Your task to perform on an android device: turn notification dots on Image 0: 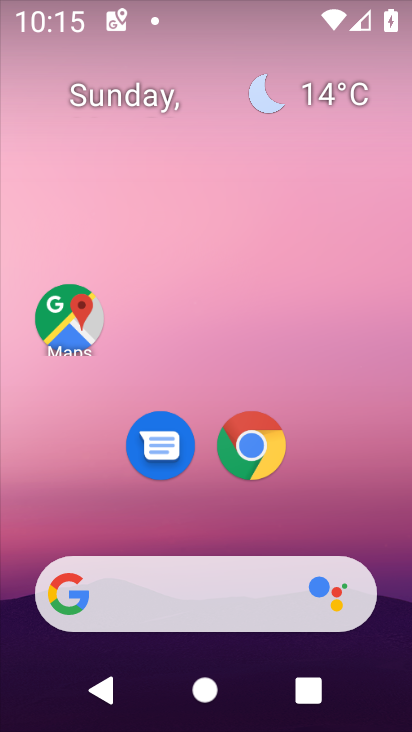
Step 0: drag from (343, 460) to (283, 145)
Your task to perform on an android device: turn notification dots on Image 1: 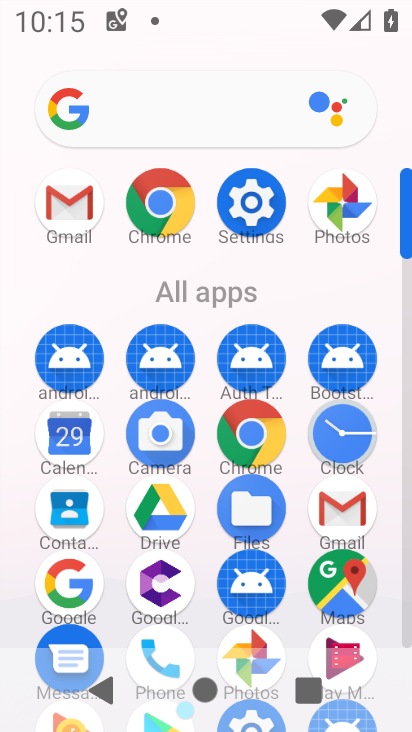
Step 1: click (249, 200)
Your task to perform on an android device: turn notification dots on Image 2: 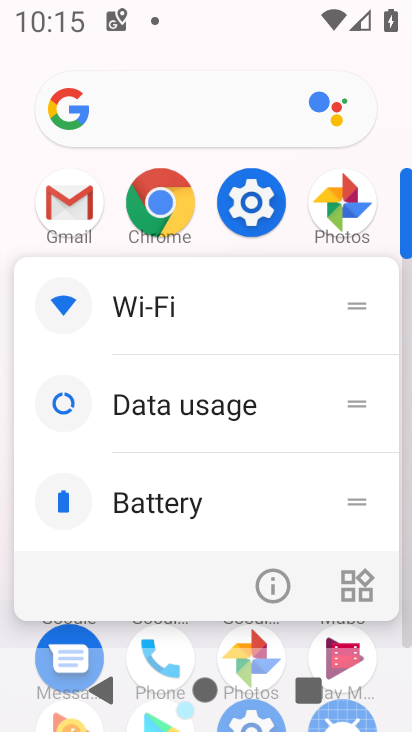
Step 2: click (276, 580)
Your task to perform on an android device: turn notification dots on Image 3: 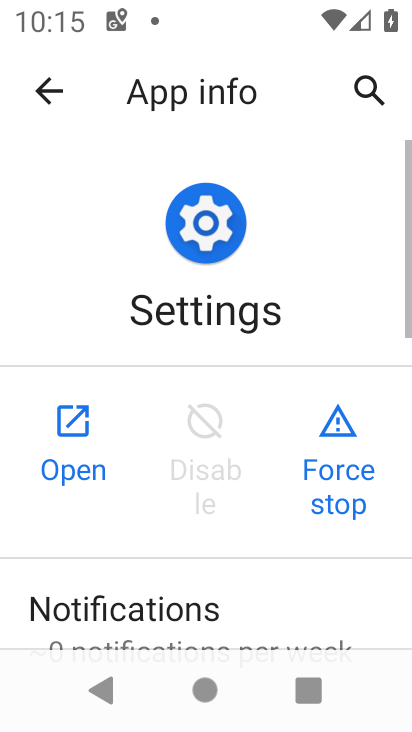
Step 3: click (66, 428)
Your task to perform on an android device: turn notification dots on Image 4: 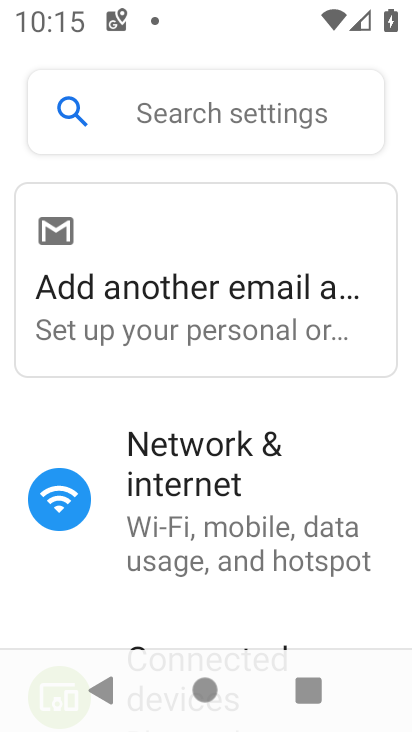
Step 4: drag from (294, 598) to (334, 159)
Your task to perform on an android device: turn notification dots on Image 5: 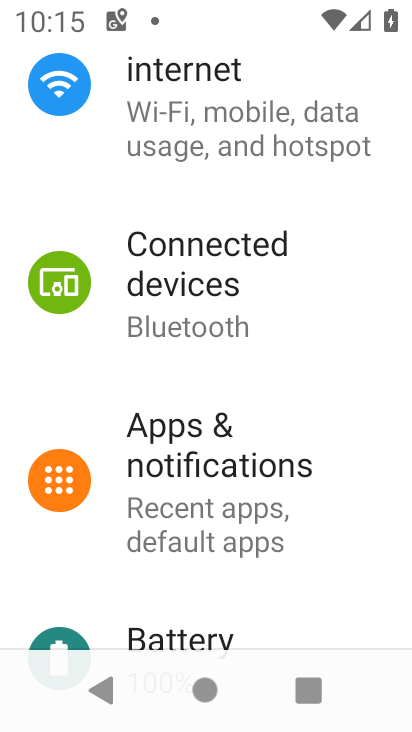
Step 5: click (240, 474)
Your task to perform on an android device: turn notification dots on Image 6: 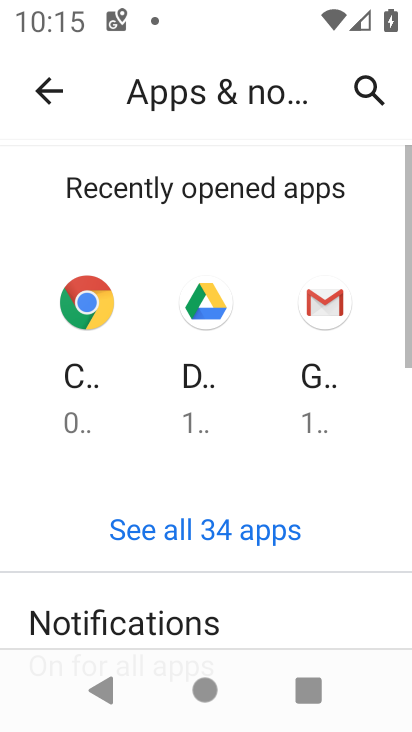
Step 6: drag from (181, 567) to (267, 0)
Your task to perform on an android device: turn notification dots on Image 7: 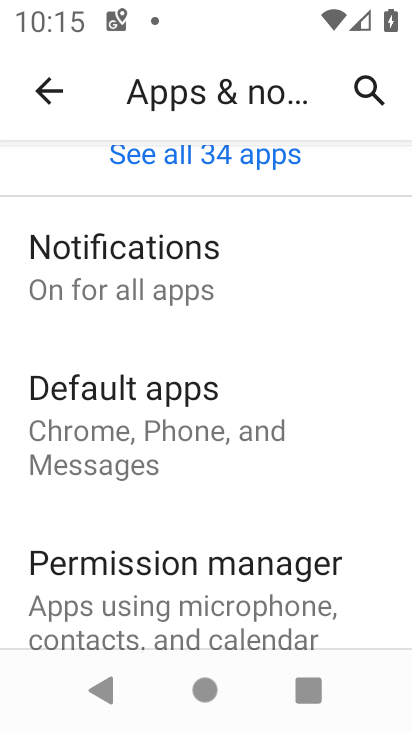
Step 7: click (182, 265)
Your task to perform on an android device: turn notification dots on Image 8: 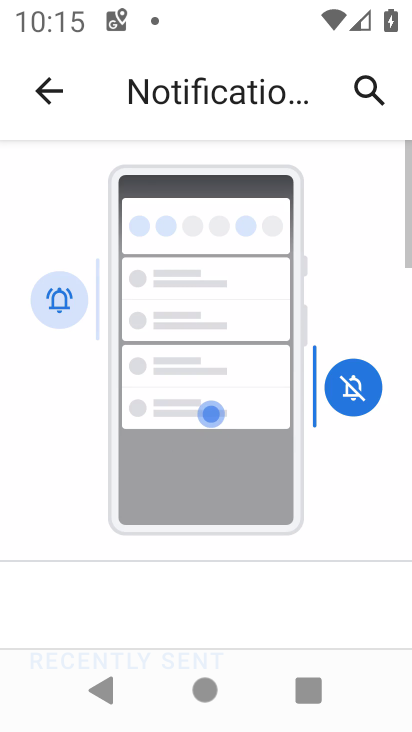
Step 8: drag from (237, 482) to (304, 214)
Your task to perform on an android device: turn notification dots on Image 9: 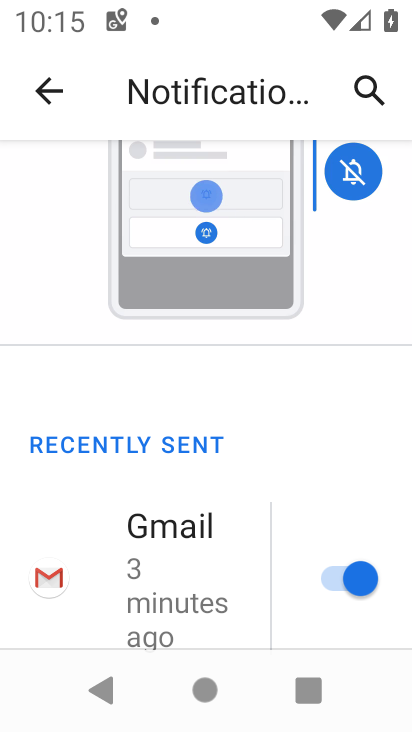
Step 9: drag from (258, 577) to (404, 0)
Your task to perform on an android device: turn notification dots on Image 10: 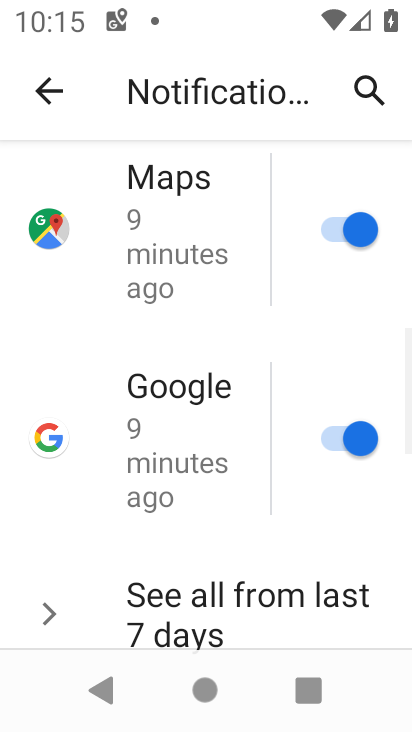
Step 10: drag from (243, 571) to (295, 133)
Your task to perform on an android device: turn notification dots on Image 11: 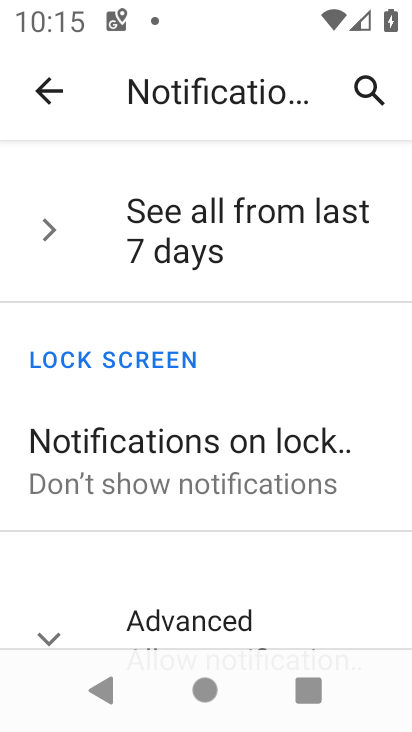
Step 11: click (165, 615)
Your task to perform on an android device: turn notification dots on Image 12: 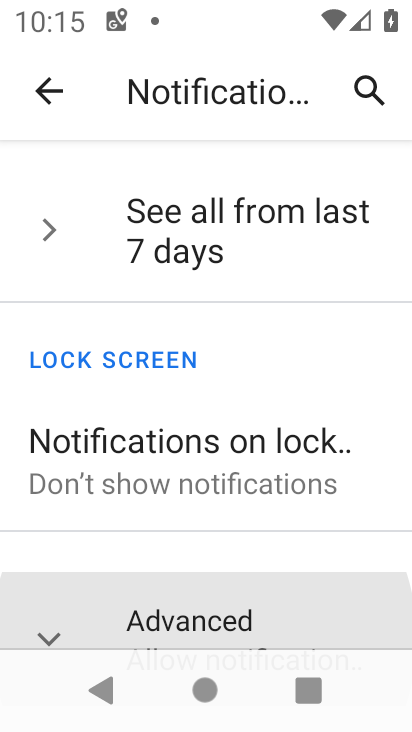
Step 12: task complete